Your task to perform on an android device: check storage Image 0: 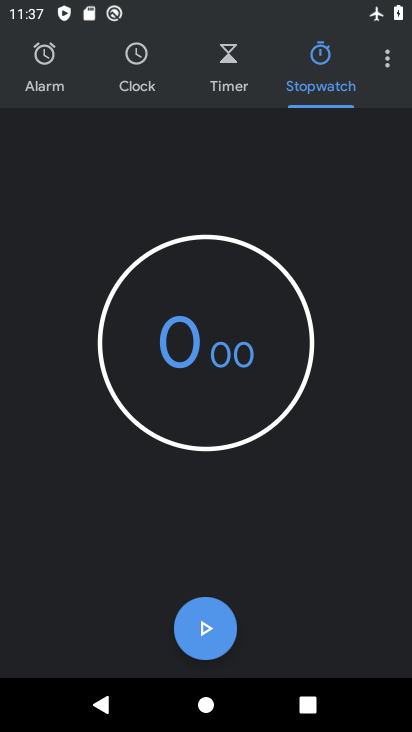
Step 0: press home button
Your task to perform on an android device: check storage Image 1: 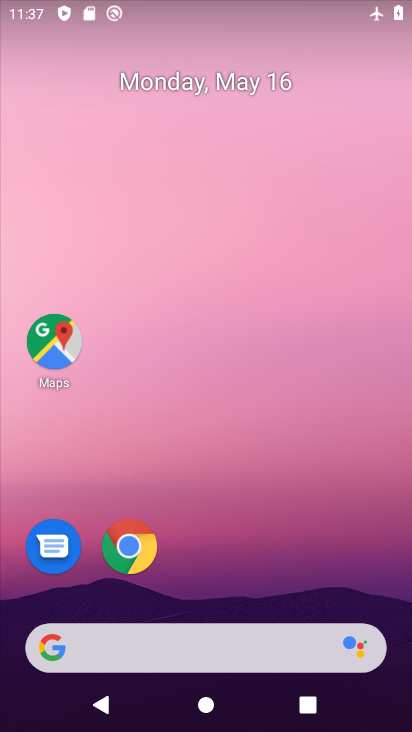
Step 1: drag from (399, 628) to (327, 73)
Your task to perform on an android device: check storage Image 2: 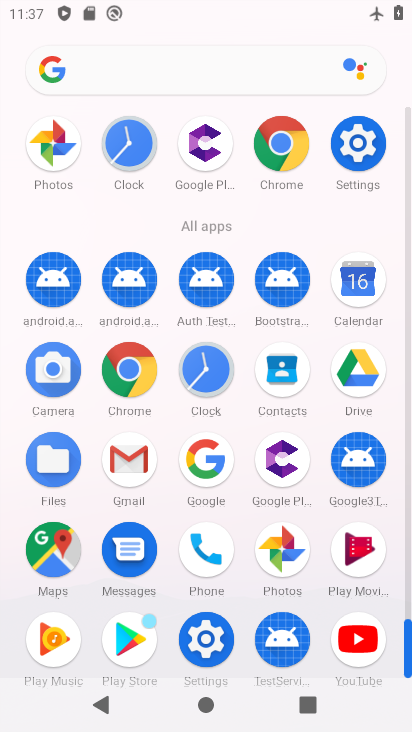
Step 2: click (202, 640)
Your task to perform on an android device: check storage Image 3: 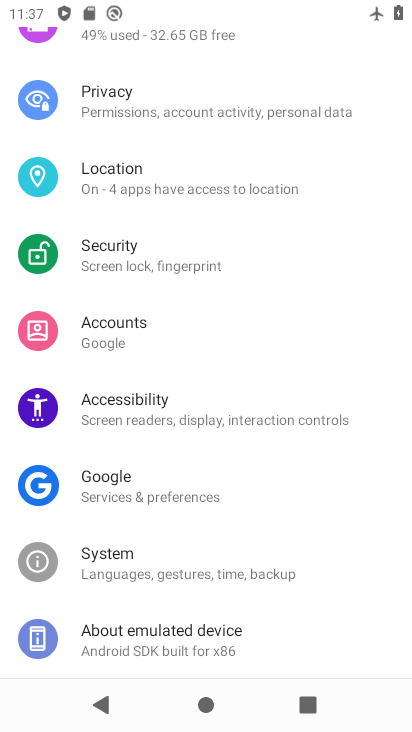
Step 3: drag from (323, 157) to (309, 504)
Your task to perform on an android device: check storage Image 4: 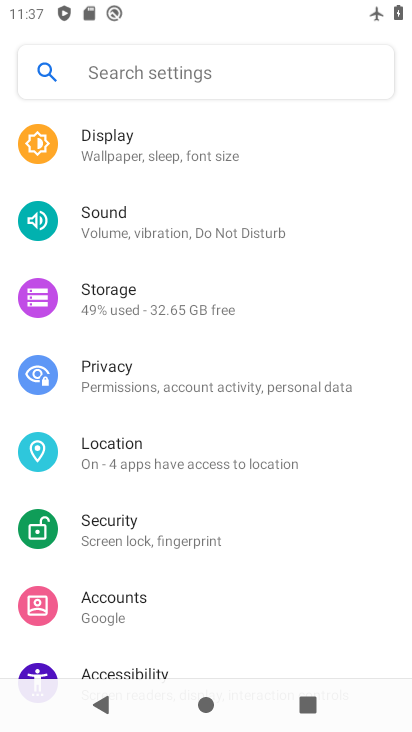
Step 4: click (101, 286)
Your task to perform on an android device: check storage Image 5: 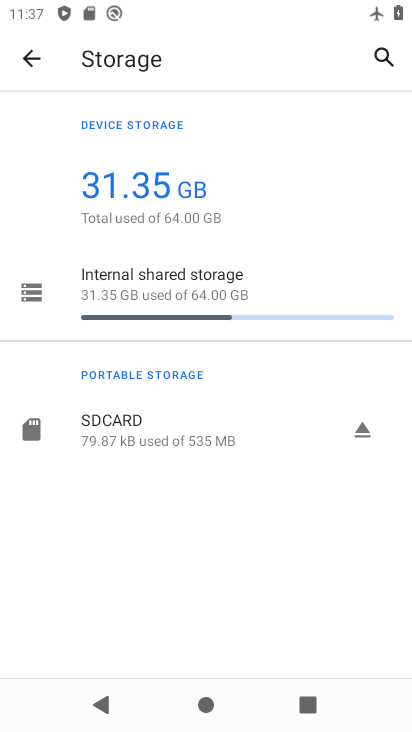
Step 5: task complete